Your task to perform on an android device: Open wifi settings Image 0: 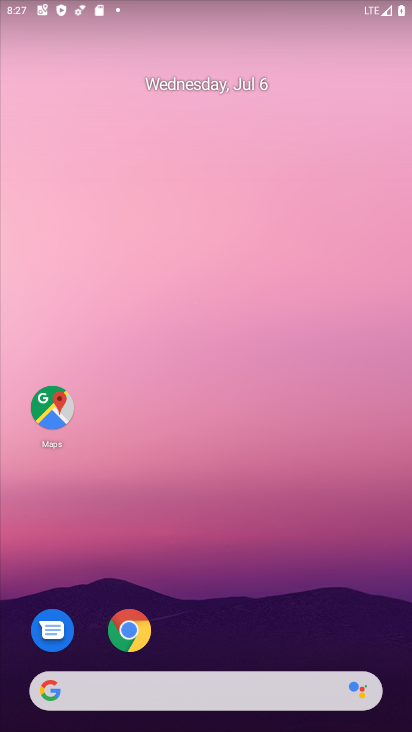
Step 0: drag from (396, 707) to (316, 122)
Your task to perform on an android device: Open wifi settings Image 1: 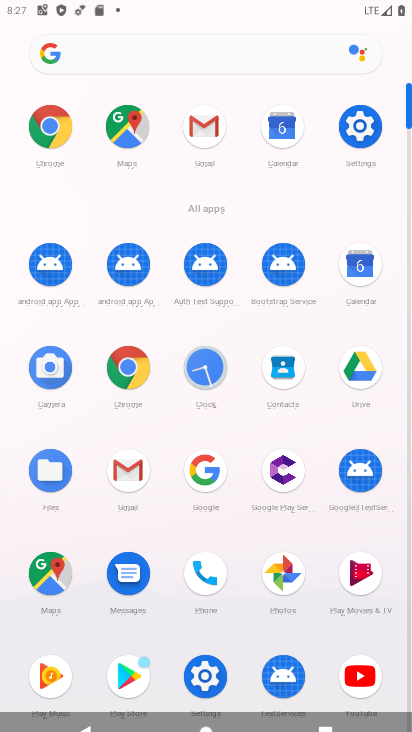
Step 1: click (358, 116)
Your task to perform on an android device: Open wifi settings Image 2: 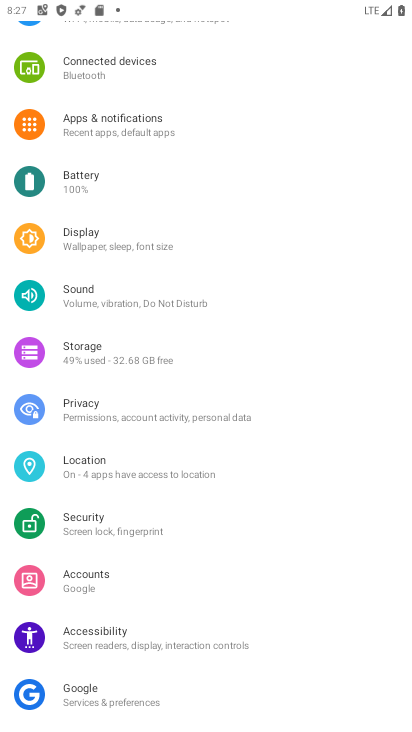
Step 2: drag from (236, 165) to (242, 482)
Your task to perform on an android device: Open wifi settings Image 3: 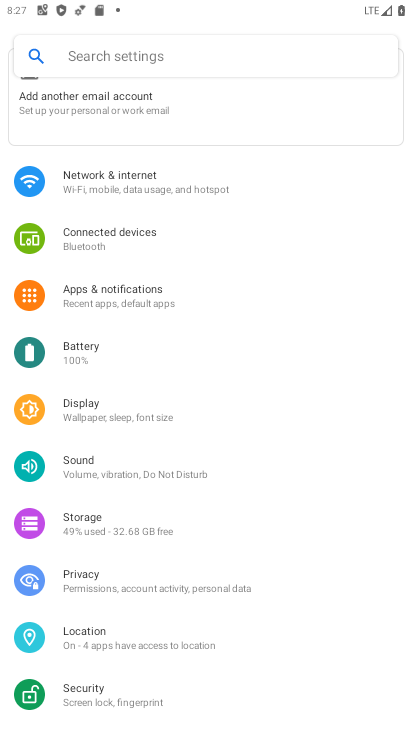
Step 3: click (121, 176)
Your task to perform on an android device: Open wifi settings Image 4: 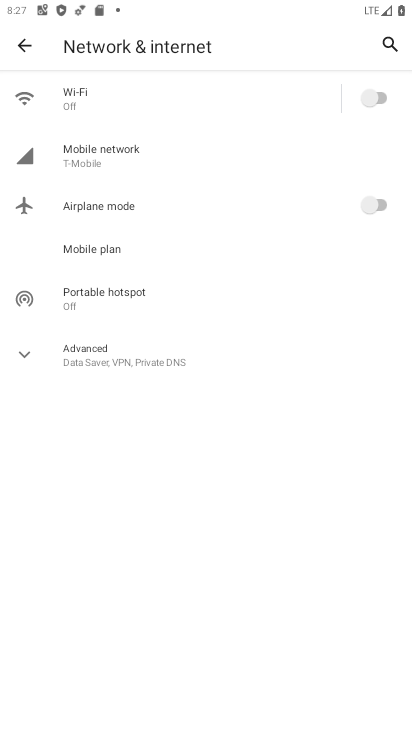
Step 4: click (380, 99)
Your task to perform on an android device: Open wifi settings Image 5: 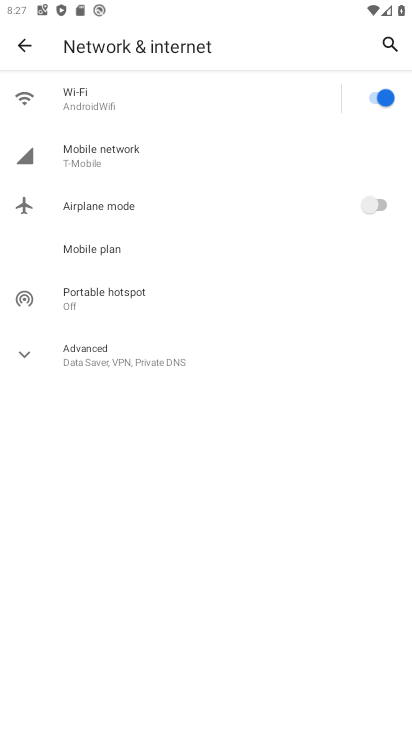
Step 5: task complete